Your task to perform on an android device: turn notification dots off Image 0: 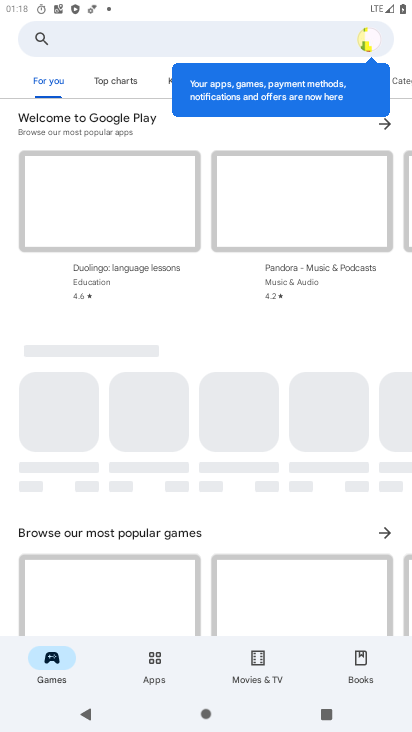
Step 0: press home button
Your task to perform on an android device: turn notification dots off Image 1: 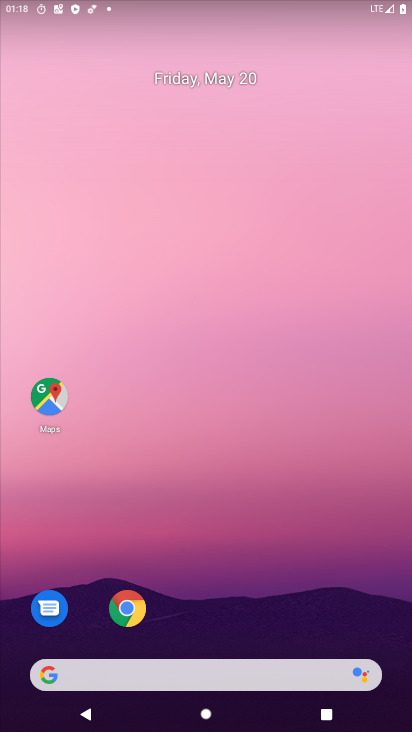
Step 1: drag from (387, 606) to (305, 121)
Your task to perform on an android device: turn notification dots off Image 2: 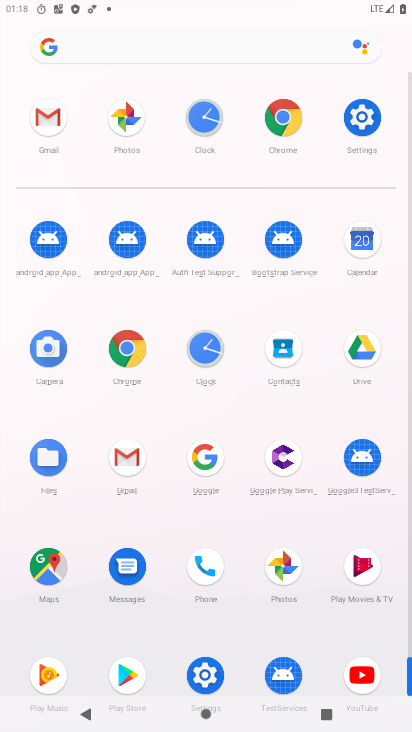
Step 2: click (365, 121)
Your task to perform on an android device: turn notification dots off Image 3: 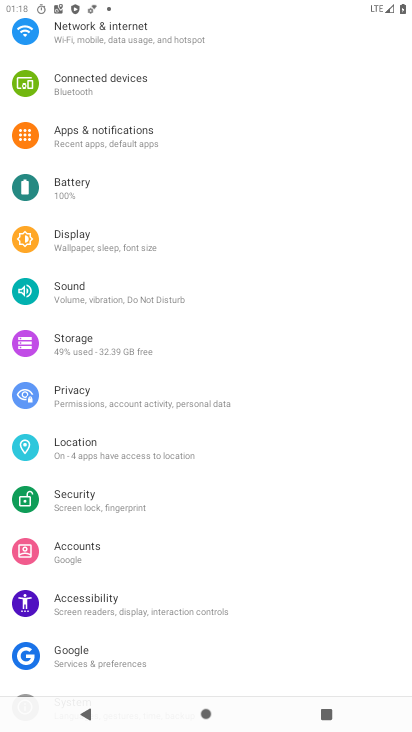
Step 3: click (147, 139)
Your task to perform on an android device: turn notification dots off Image 4: 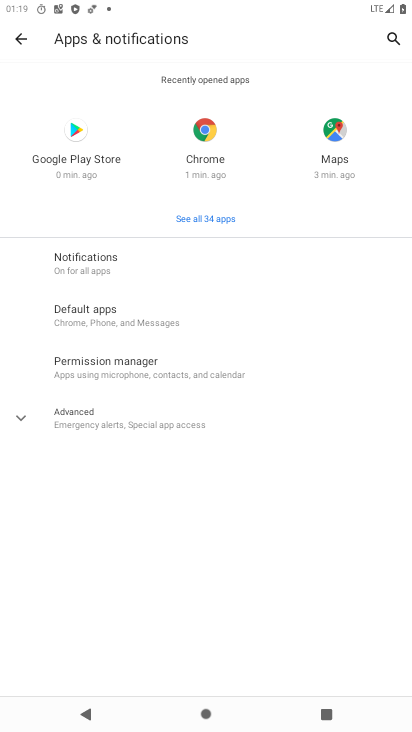
Step 4: click (127, 257)
Your task to perform on an android device: turn notification dots off Image 5: 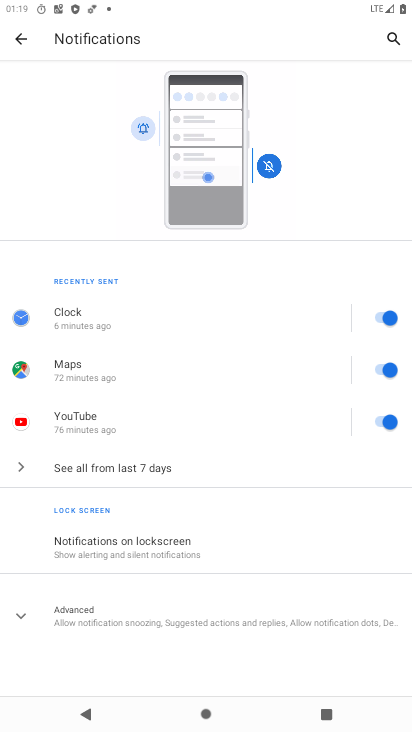
Step 5: click (128, 621)
Your task to perform on an android device: turn notification dots off Image 6: 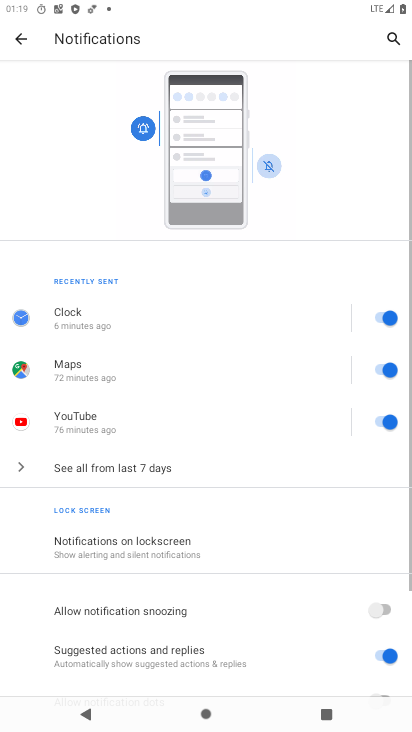
Step 6: task complete